Your task to perform on an android device: turn on notifications settings in the gmail app Image 0: 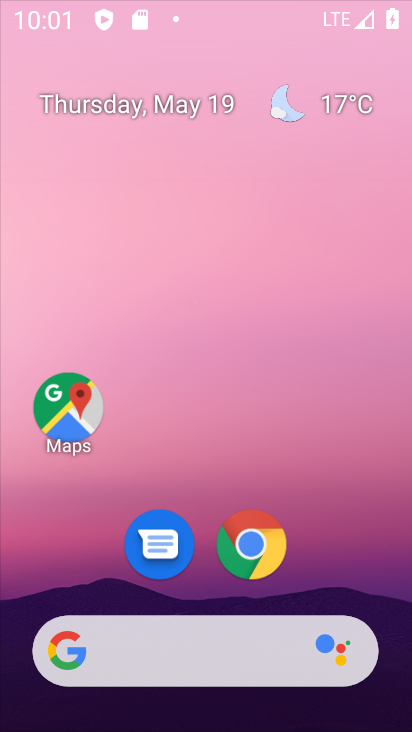
Step 0: click (219, 319)
Your task to perform on an android device: turn on notifications settings in the gmail app Image 1: 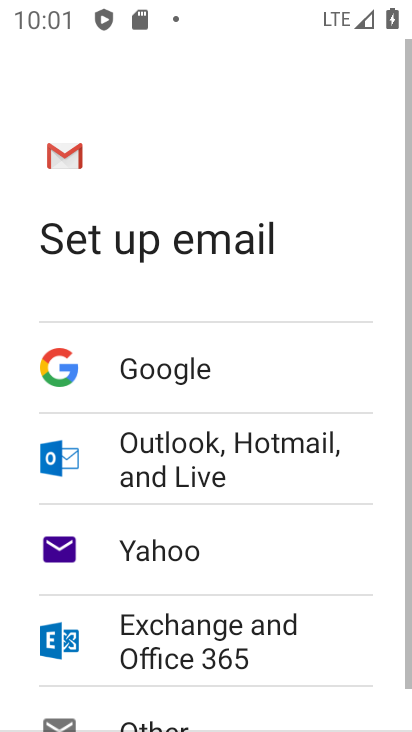
Step 1: drag from (307, 308) to (325, 94)
Your task to perform on an android device: turn on notifications settings in the gmail app Image 2: 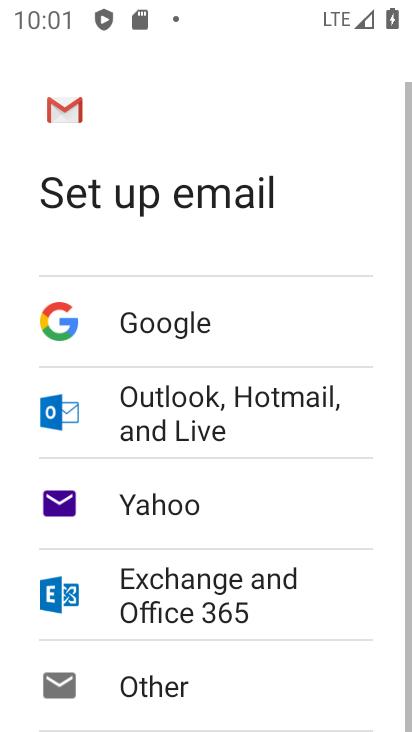
Step 2: press home button
Your task to perform on an android device: turn on notifications settings in the gmail app Image 3: 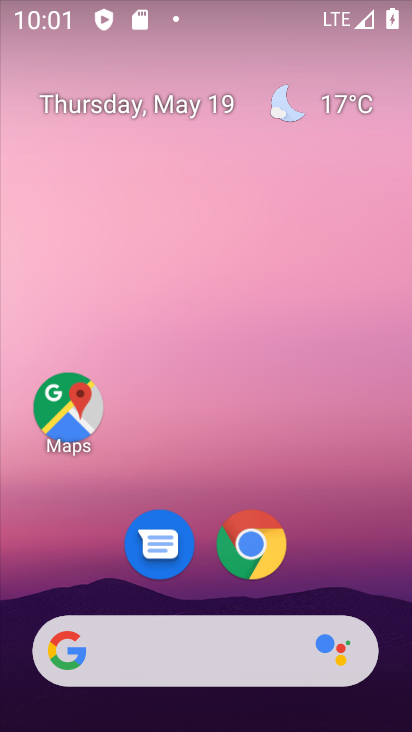
Step 3: drag from (220, 625) to (307, 138)
Your task to perform on an android device: turn on notifications settings in the gmail app Image 4: 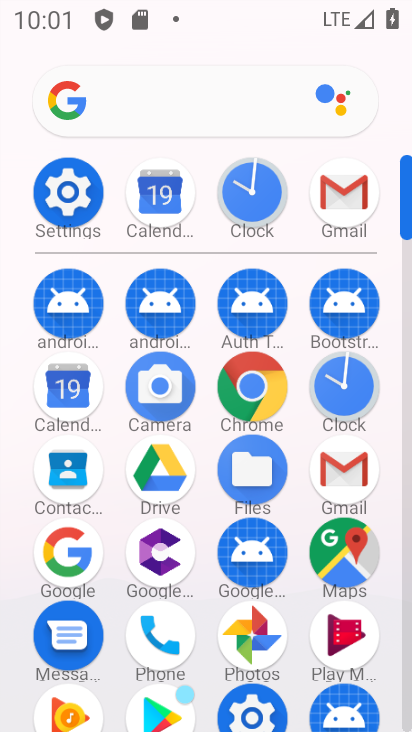
Step 4: click (347, 208)
Your task to perform on an android device: turn on notifications settings in the gmail app Image 5: 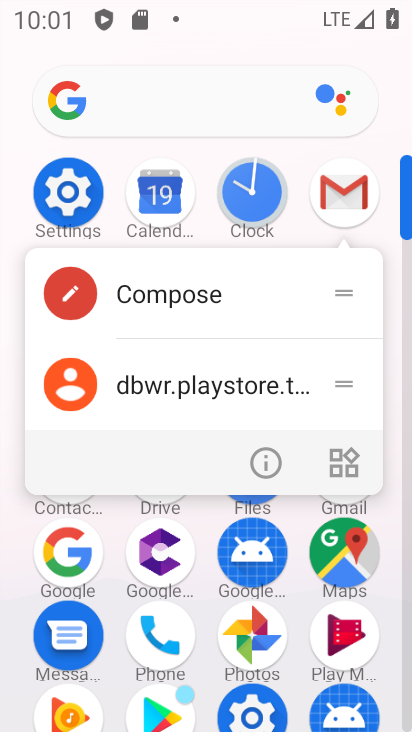
Step 5: click (270, 457)
Your task to perform on an android device: turn on notifications settings in the gmail app Image 6: 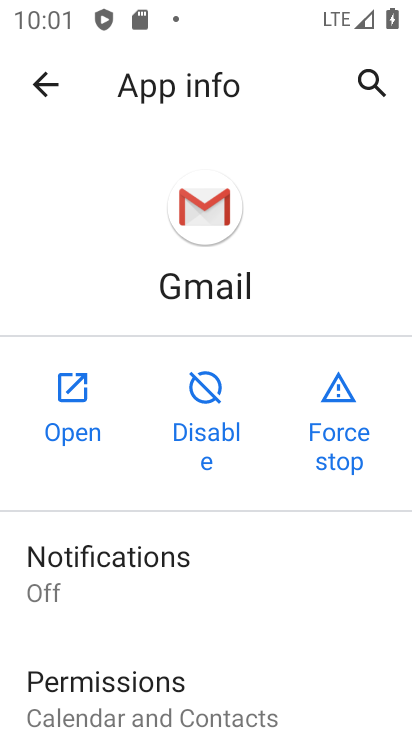
Step 6: click (135, 581)
Your task to perform on an android device: turn on notifications settings in the gmail app Image 7: 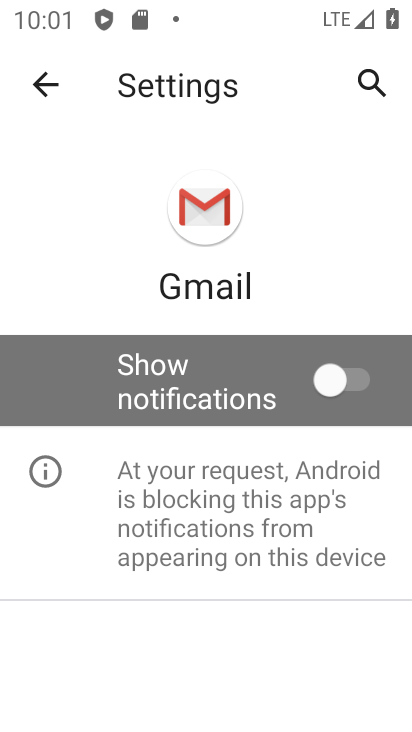
Step 7: click (349, 380)
Your task to perform on an android device: turn on notifications settings in the gmail app Image 8: 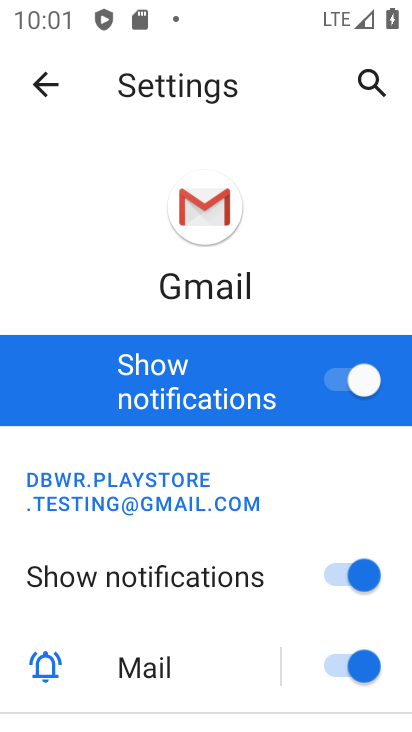
Step 8: task complete